Your task to perform on an android device: Search for beats solo 3 on target.com, select the first entry, and add it to the cart. Image 0: 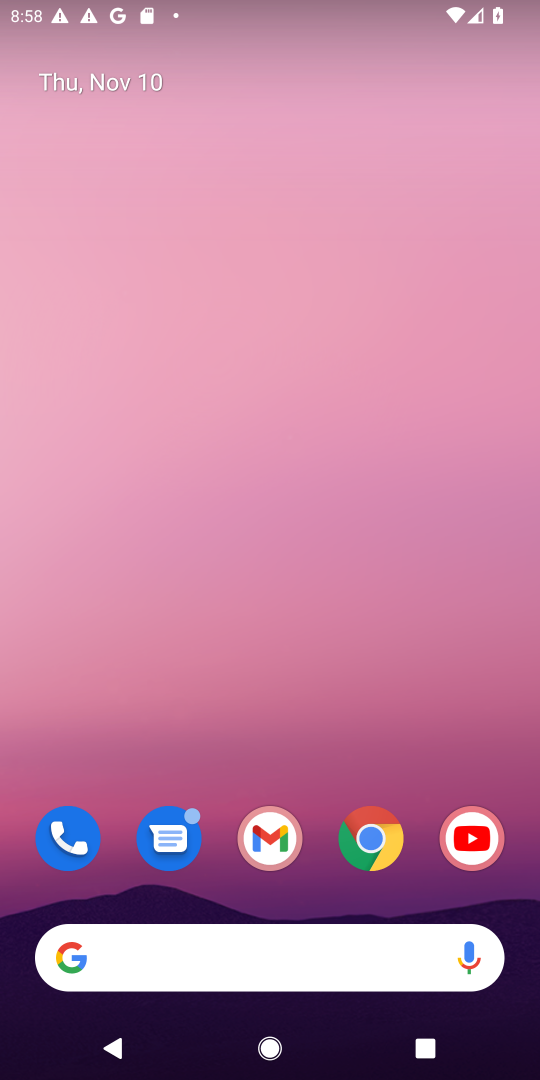
Step 0: drag from (321, 896) to (328, 0)
Your task to perform on an android device: Search for beats solo 3 on target.com, select the first entry, and add it to the cart. Image 1: 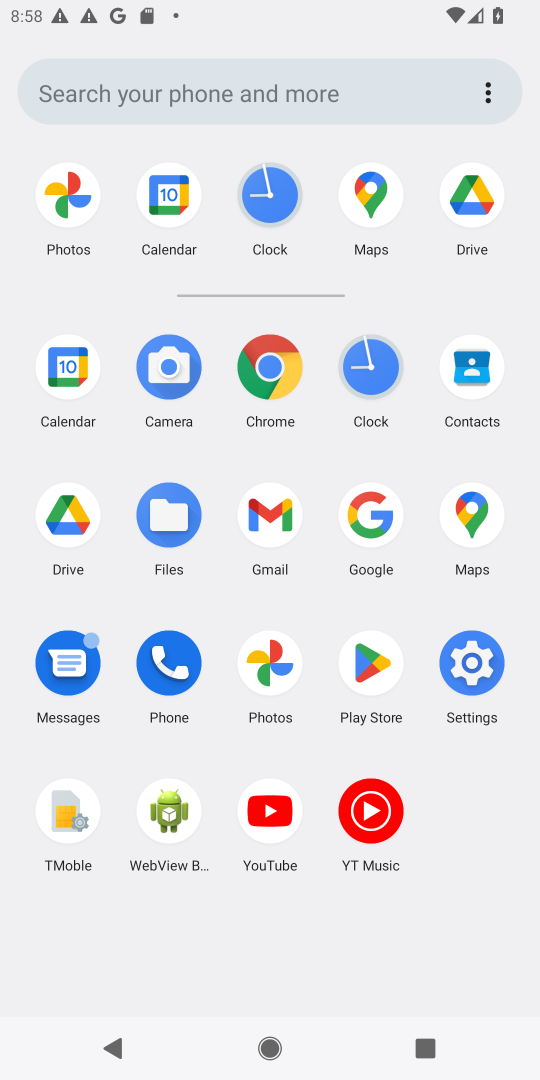
Step 1: click (275, 370)
Your task to perform on an android device: Search for beats solo 3 on target.com, select the first entry, and add it to the cart. Image 2: 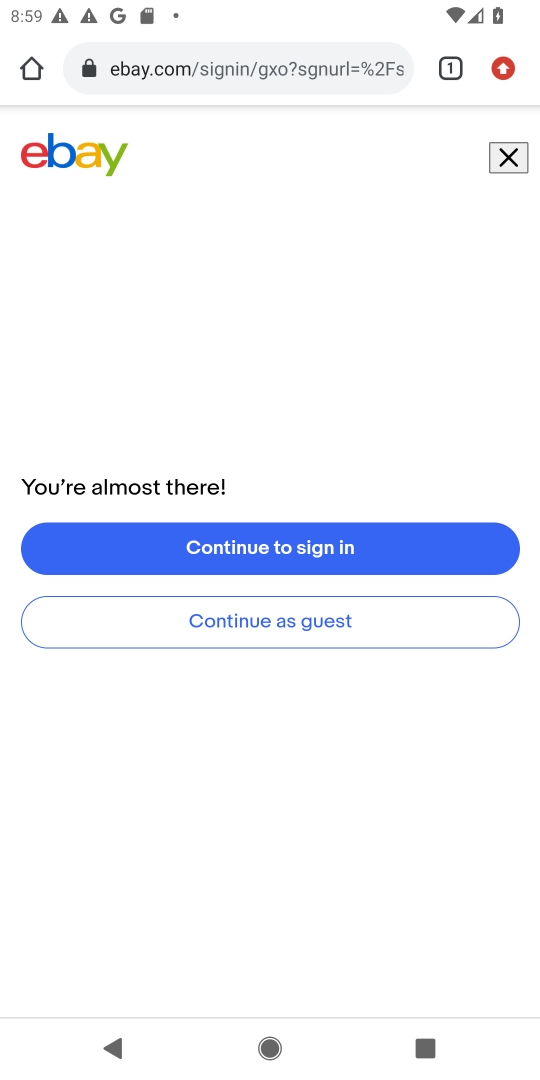
Step 2: click (293, 64)
Your task to perform on an android device: Search for beats solo 3 on target.com, select the first entry, and add it to the cart. Image 3: 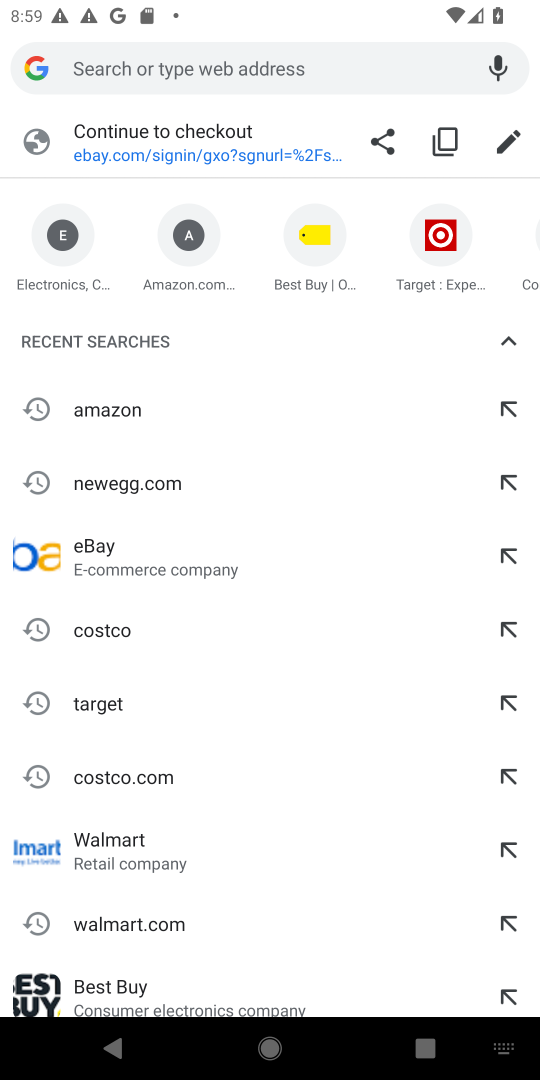
Step 3: type "target.com"
Your task to perform on an android device: Search for beats solo 3 on target.com, select the first entry, and add it to the cart. Image 4: 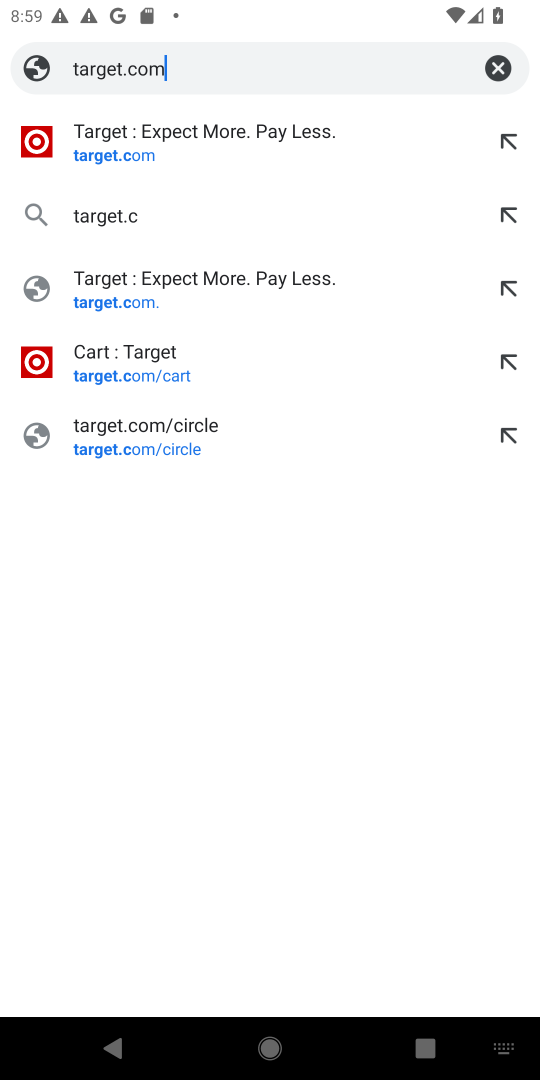
Step 4: press enter
Your task to perform on an android device: Search for beats solo 3 on target.com, select the first entry, and add it to the cart. Image 5: 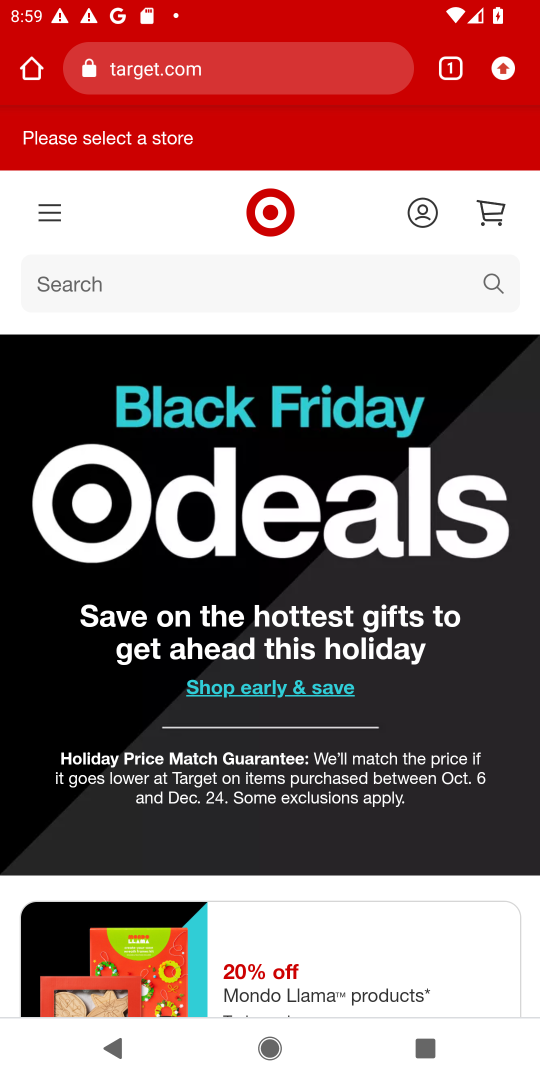
Step 5: click (338, 289)
Your task to perform on an android device: Search for beats solo 3 on target.com, select the first entry, and add it to the cart. Image 6: 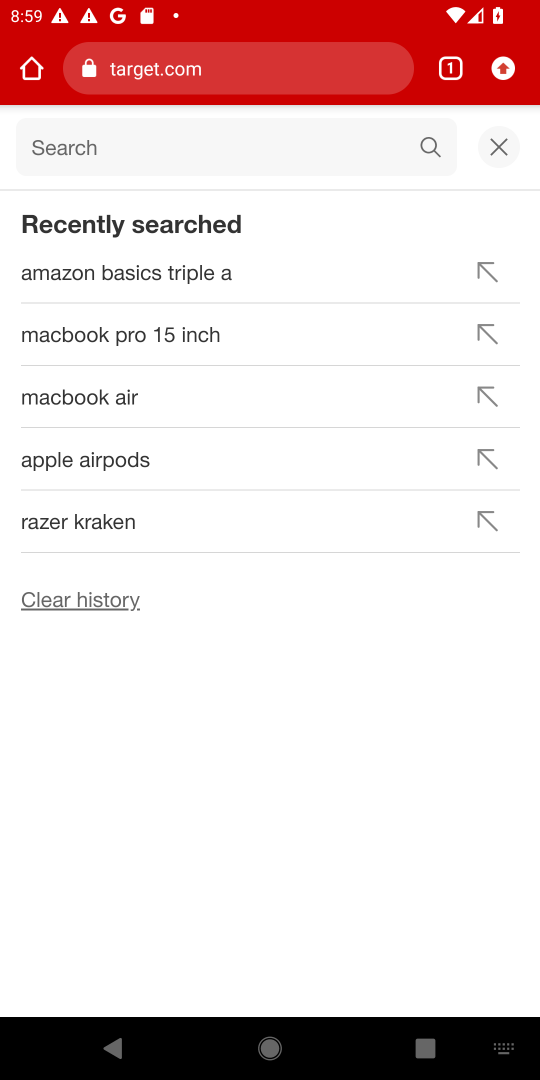
Step 6: type "beats solo 3"
Your task to perform on an android device: Search for beats solo 3 on target.com, select the first entry, and add it to the cart. Image 7: 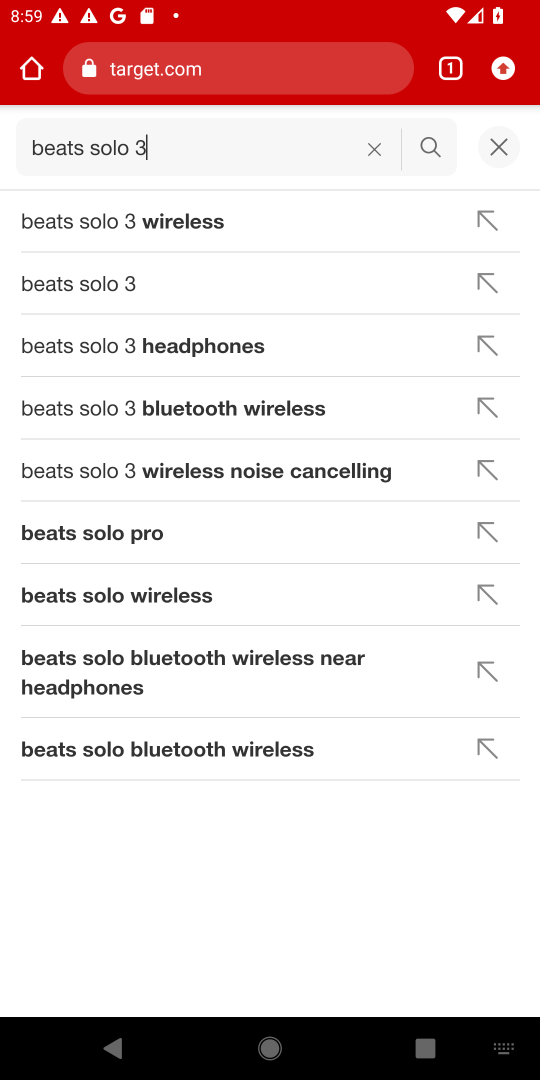
Step 7: press enter
Your task to perform on an android device: Search for beats solo 3 on target.com, select the first entry, and add it to the cart. Image 8: 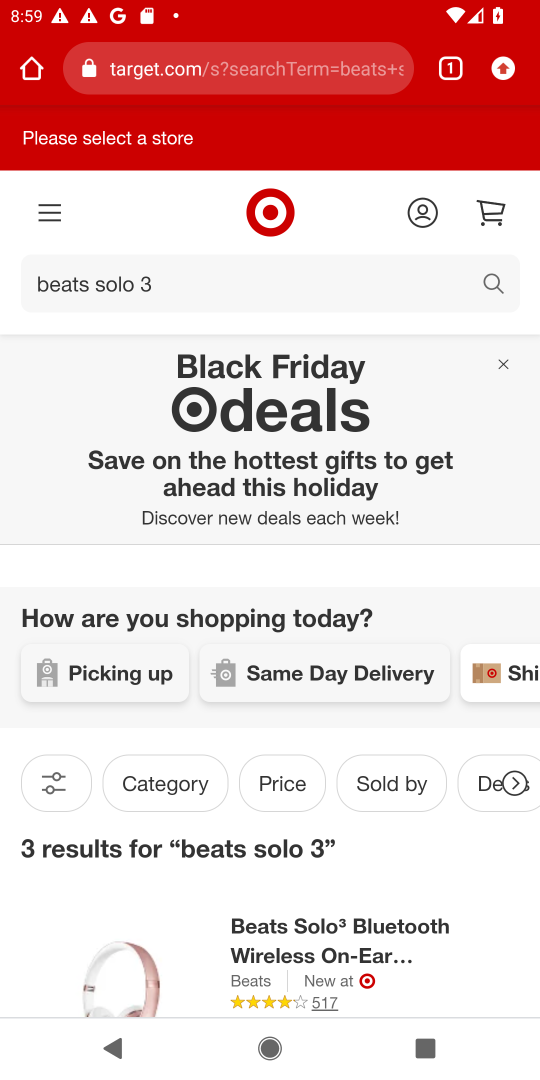
Step 8: drag from (347, 695) to (405, 325)
Your task to perform on an android device: Search for beats solo 3 on target.com, select the first entry, and add it to the cart. Image 9: 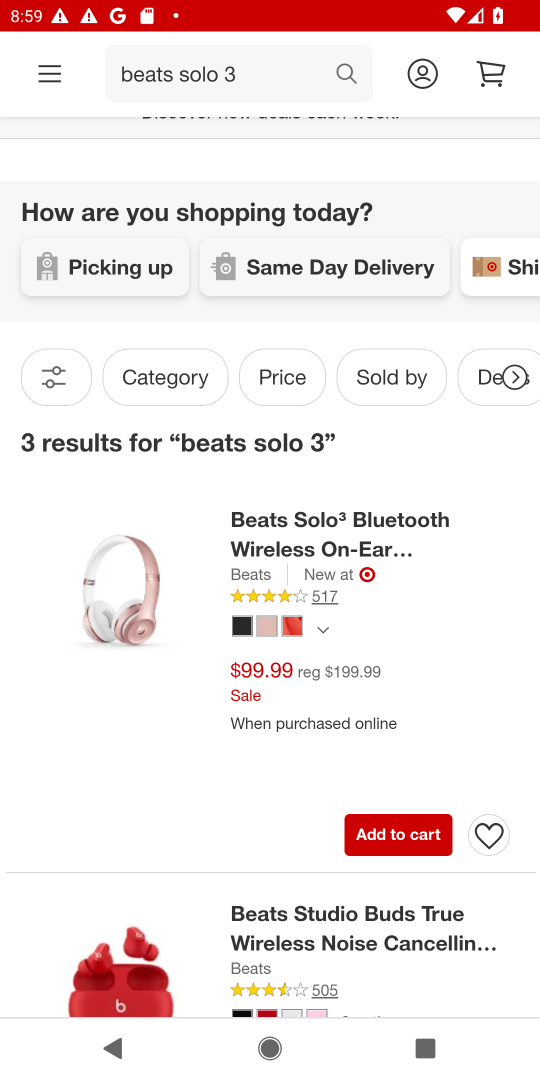
Step 9: click (403, 825)
Your task to perform on an android device: Search for beats solo 3 on target.com, select the first entry, and add it to the cart. Image 10: 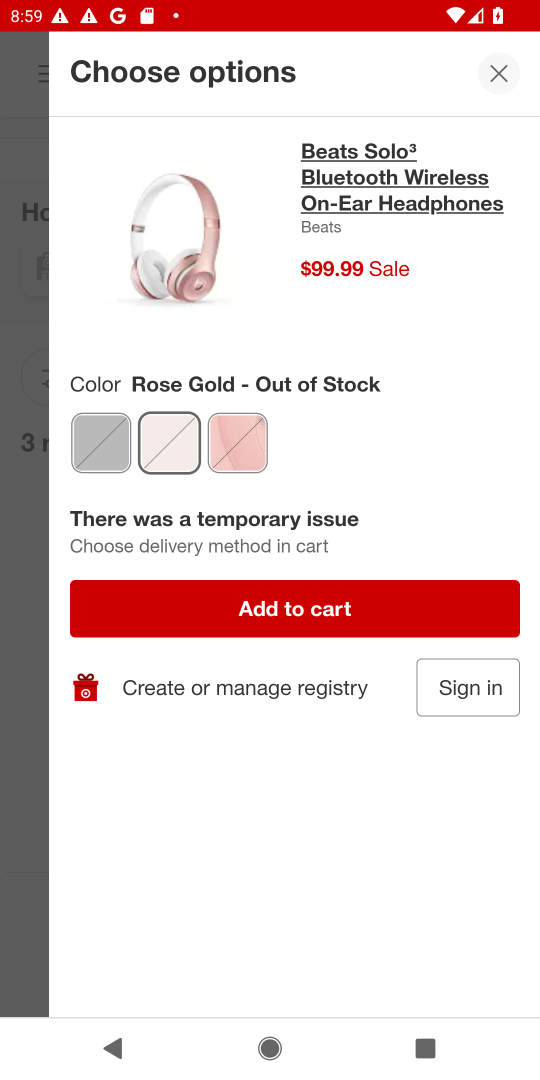
Step 10: click (334, 601)
Your task to perform on an android device: Search for beats solo 3 on target.com, select the first entry, and add it to the cart. Image 11: 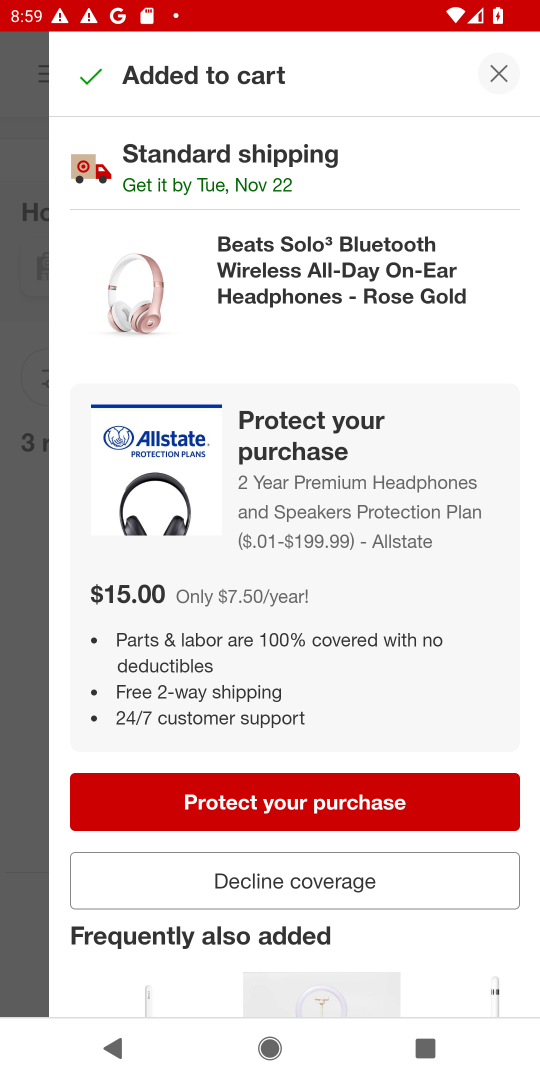
Step 11: task complete